Your task to perform on an android device: turn off location history Image 0: 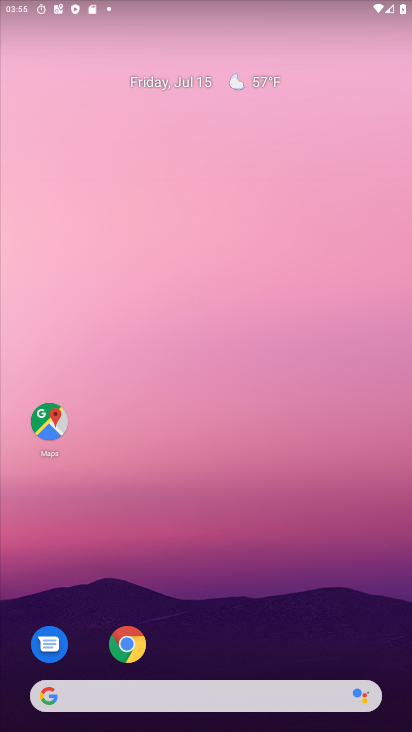
Step 0: click (44, 420)
Your task to perform on an android device: turn off location history Image 1: 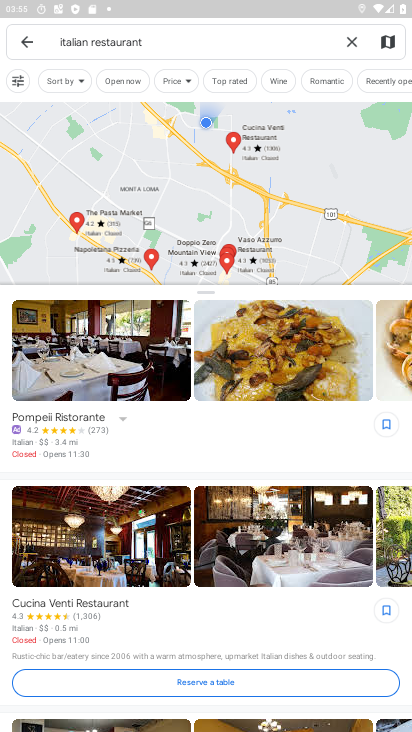
Step 1: click (21, 41)
Your task to perform on an android device: turn off location history Image 2: 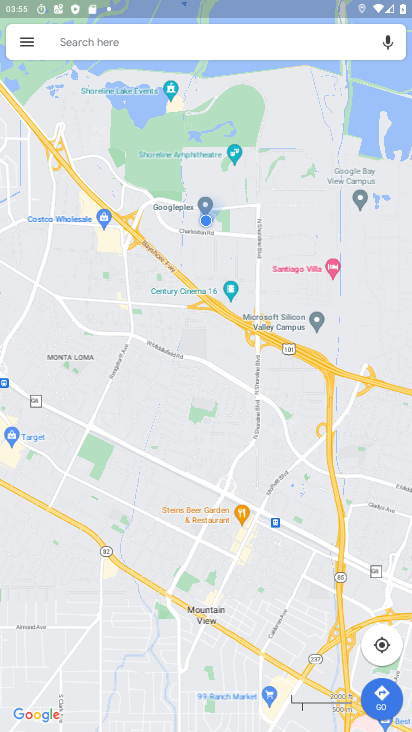
Step 2: click (21, 41)
Your task to perform on an android device: turn off location history Image 3: 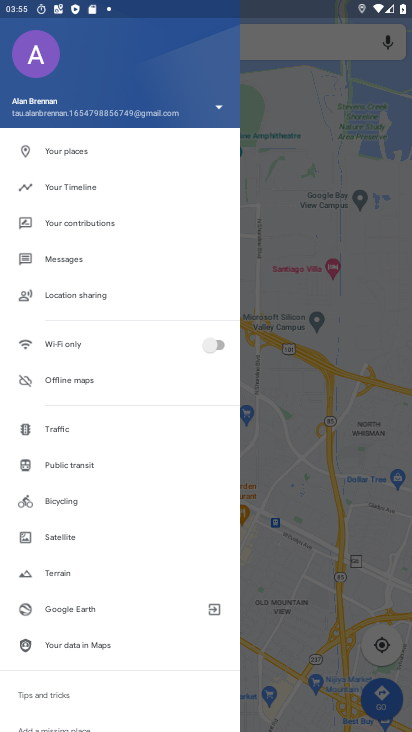
Step 3: click (90, 187)
Your task to perform on an android device: turn off location history Image 4: 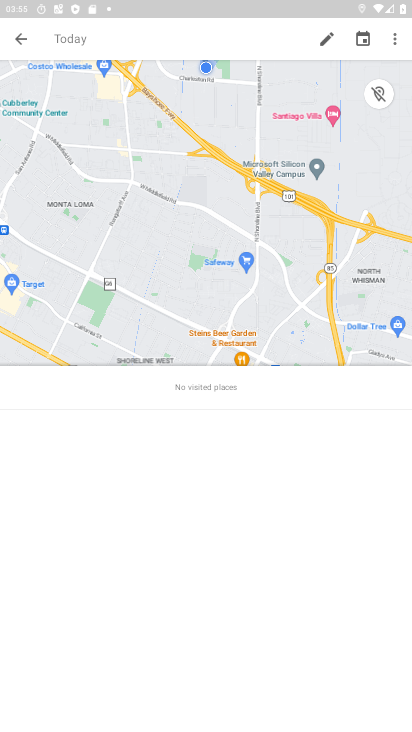
Step 4: click (391, 47)
Your task to perform on an android device: turn off location history Image 5: 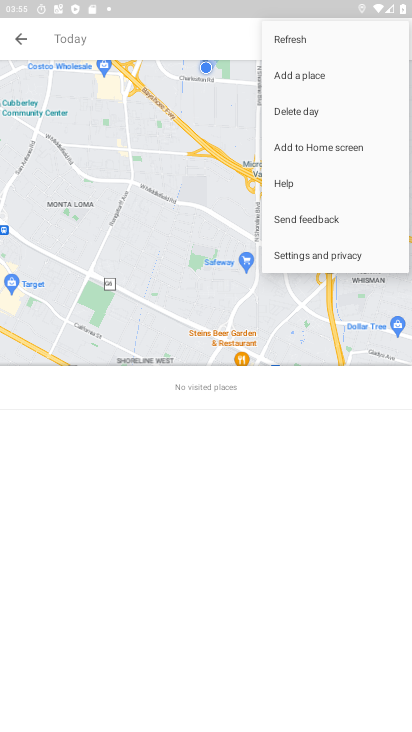
Step 5: click (343, 245)
Your task to perform on an android device: turn off location history Image 6: 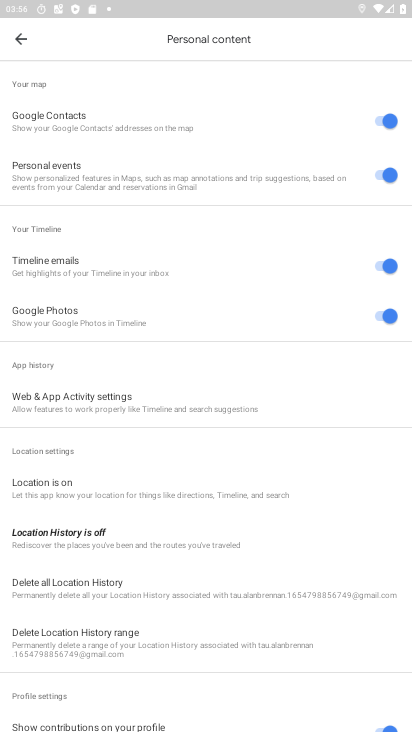
Step 6: click (218, 524)
Your task to perform on an android device: turn off location history Image 7: 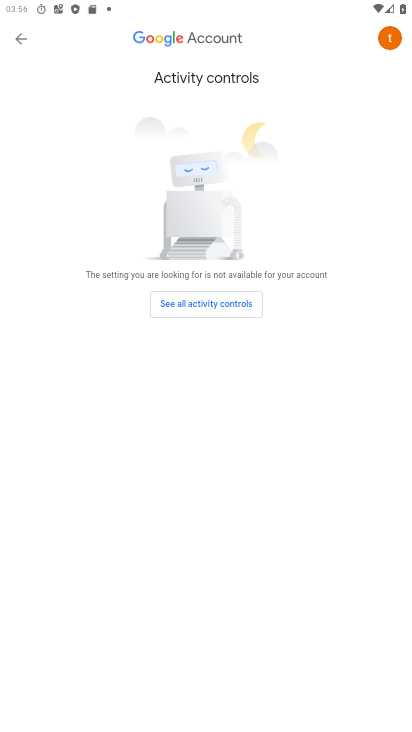
Step 7: task complete